Your task to perform on an android device: turn pop-ups on in chrome Image 0: 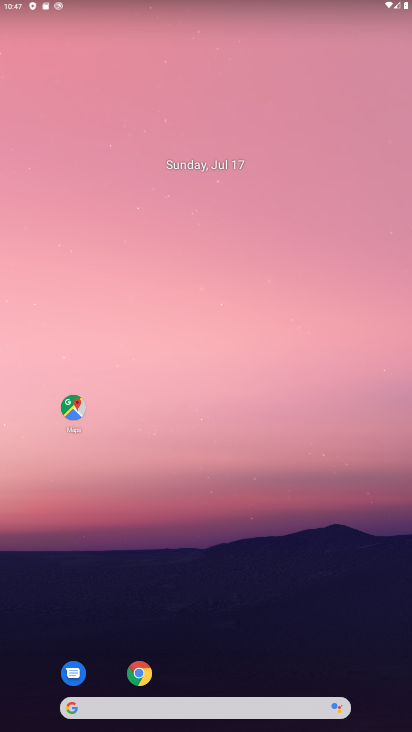
Step 0: click (139, 677)
Your task to perform on an android device: turn pop-ups on in chrome Image 1: 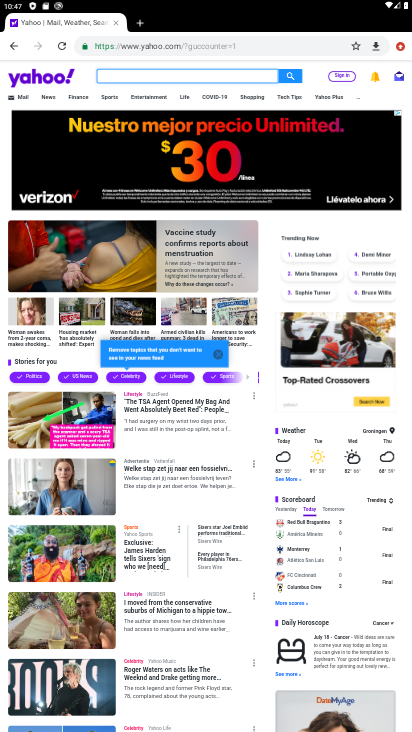
Step 1: click (406, 45)
Your task to perform on an android device: turn pop-ups on in chrome Image 2: 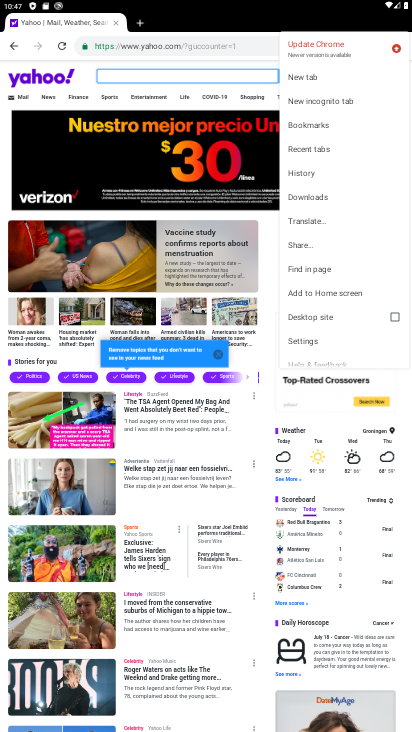
Step 2: click (314, 342)
Your task to perform on an android device: turn pop-ups on in chrome Image 3: 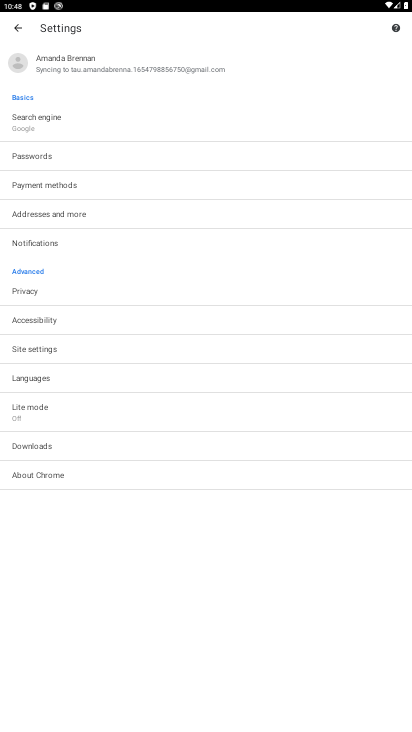
Step 3: click (47, 344)
Your task to perform on an android device: turn pop-ups on in chrome Image 4: 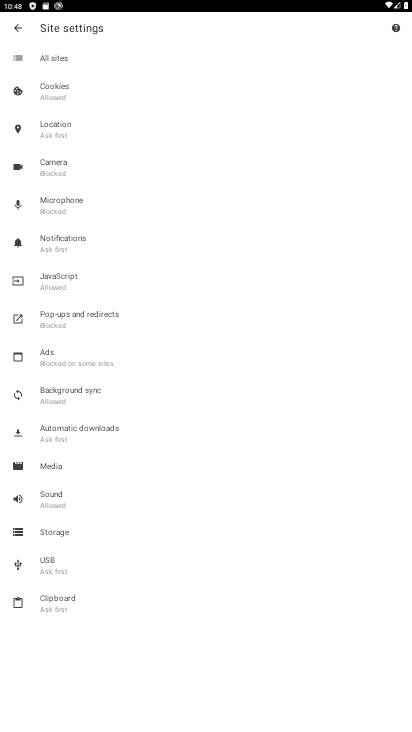
Step 4: click (79, 316)
Your task to perform on an android device: turn pop-ups on in chrome Image 5: 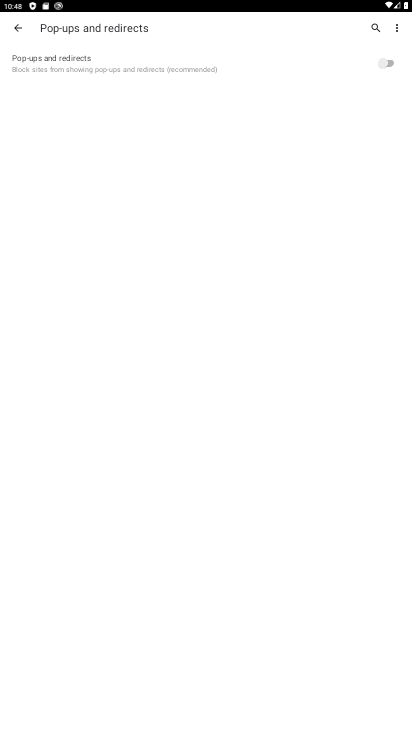
Step 5: click (387, 59)
Your task to perform on an android device: turn pop-ups on in chrome Image 6: 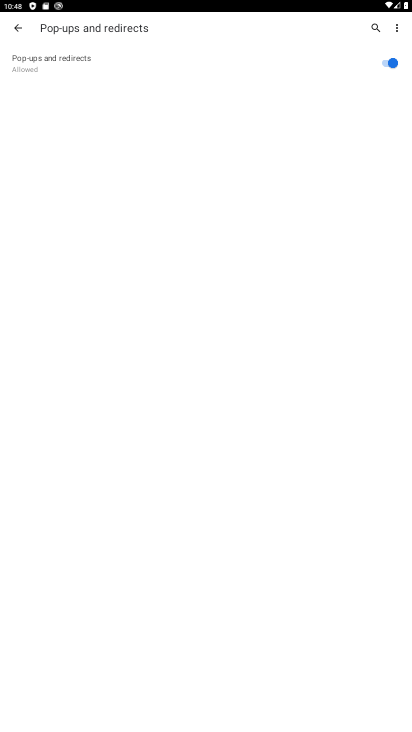
Step 6: task complete